Your task to perform on an android device: Open Google Chrome Image 0: 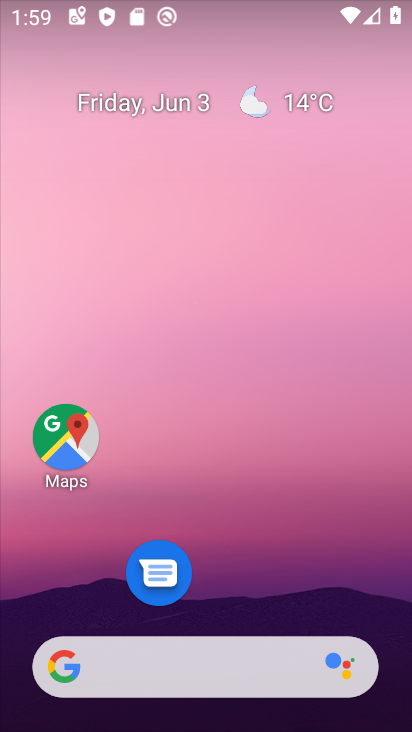
Step 0: drag from (290, 668) to (284, 16)
Your task to perform on an android device: Open Google Chrome Image 1: 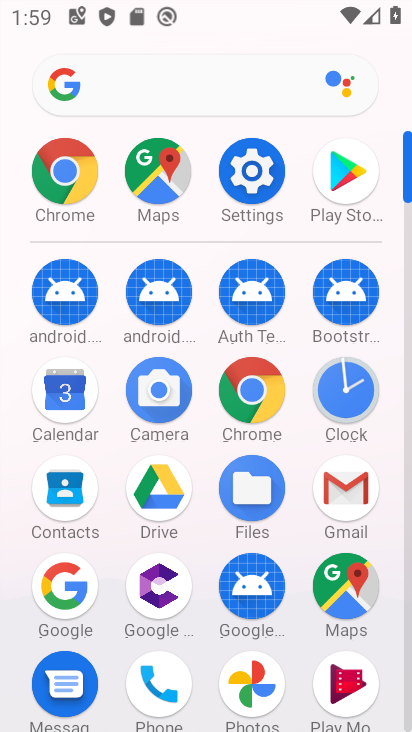
Step 1: click (246, 386)
Your task to perform on an android device: Open Google Chrome Image 2: 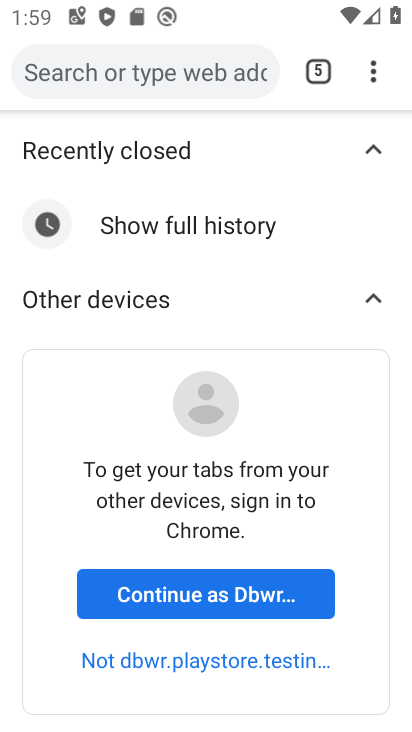
Step 2: press home button
Your task to perform on an android device: Open Google Chrome Image 3: 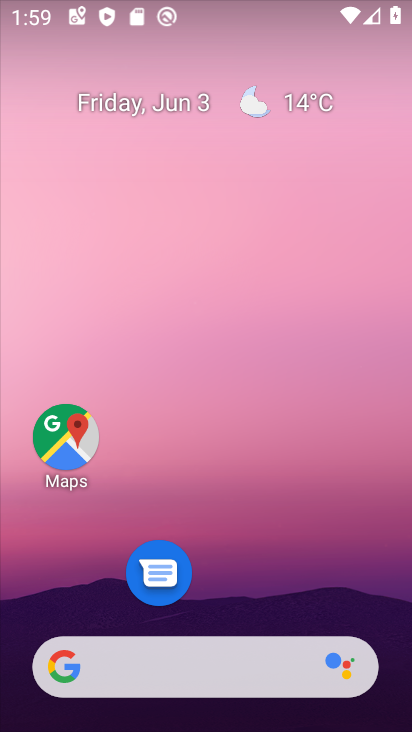
Step 3: drag from (225, 530) to (271, 12)
Your task to perform on an android device: Open Google Chrome Image 4: 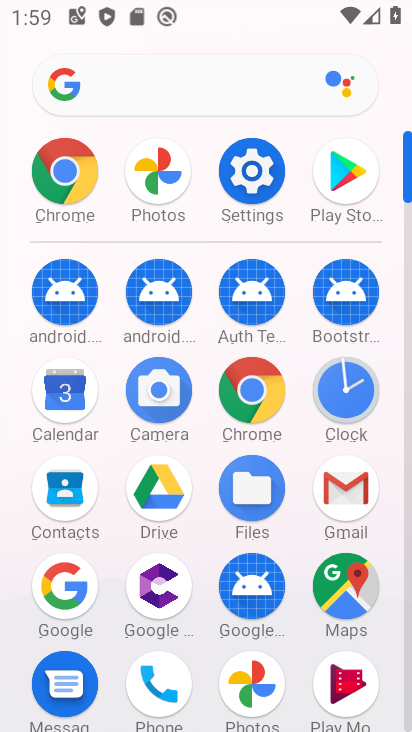
Step 4: click (258, 370)
Your task to perform on an android device: Open Google Chrome Image 5: 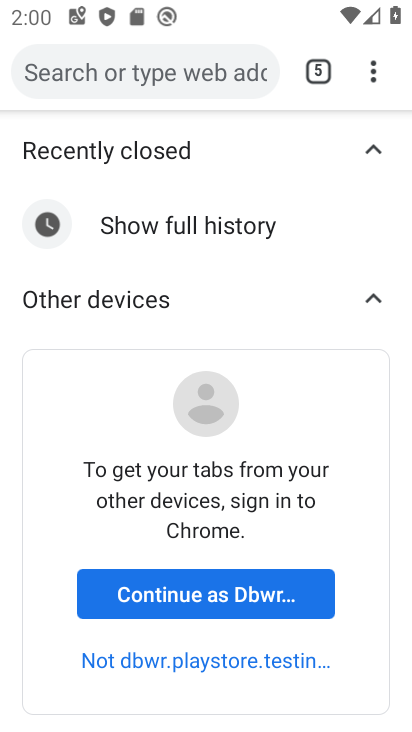
Step 5: task complete